Your task to perform on an android device: Open Yahoo.com Image 0: 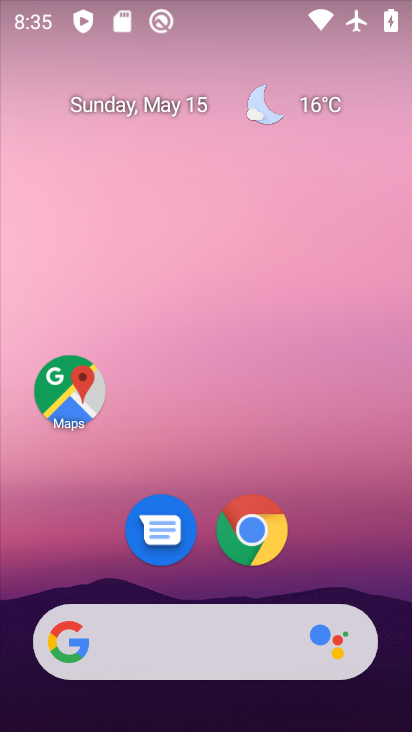
Step 0: click (259, 535)
Your task to perform on an android device: Open Yahoo.com Image 1: 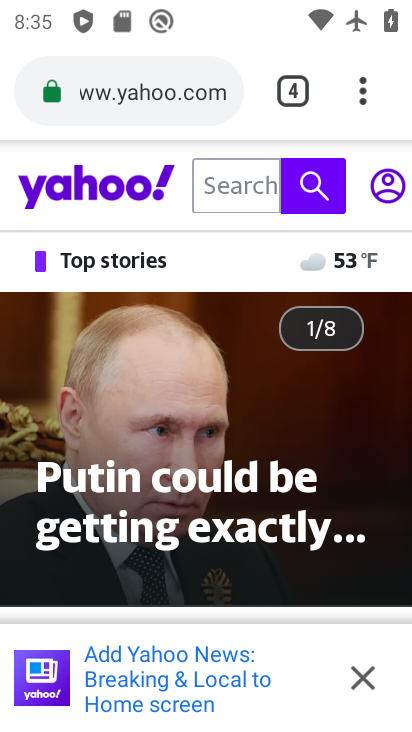
Step 1: task complete